Your task to perform on an android device: see tabs open on other devices in the chrome app Image 0: 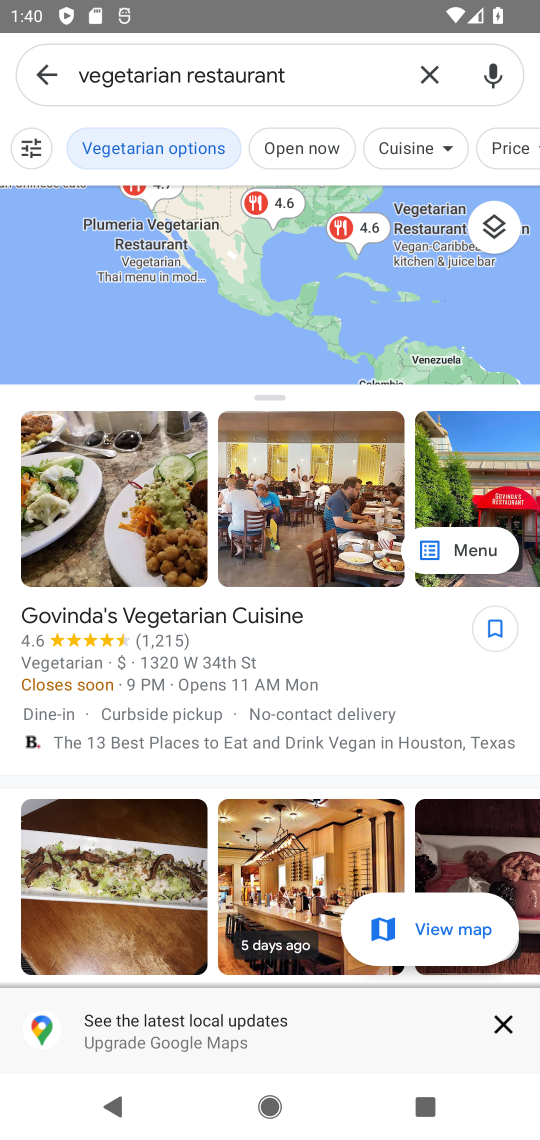
Step 0: press home button
Your task to perform on an android device: see tabs open on other devices in the chrome app Image 1: 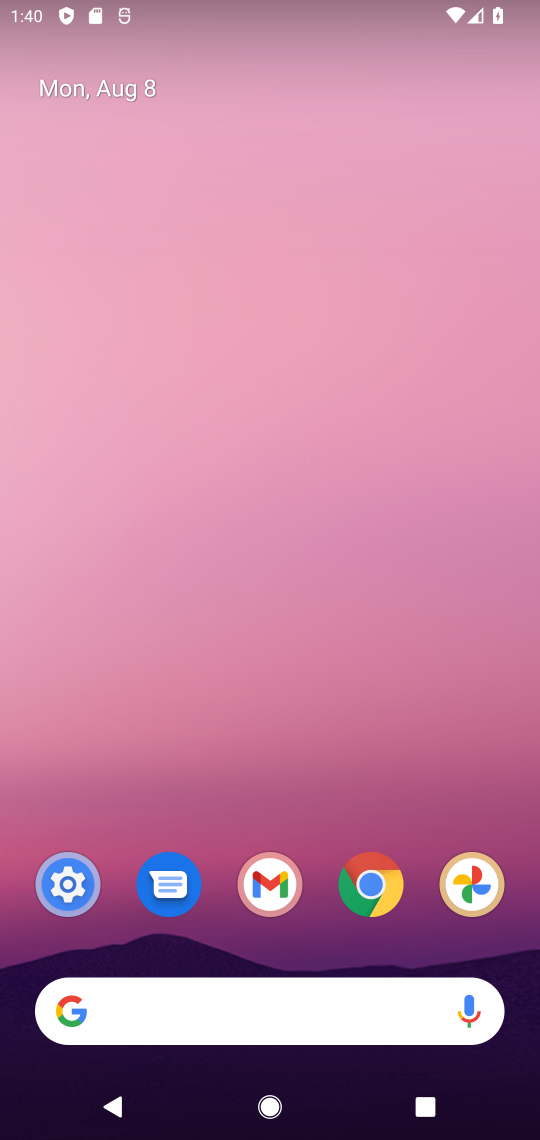
Step 1: click (378, 879)
Your task to perform on an android device: see tabs open on other devices in the chrome app Image 2: 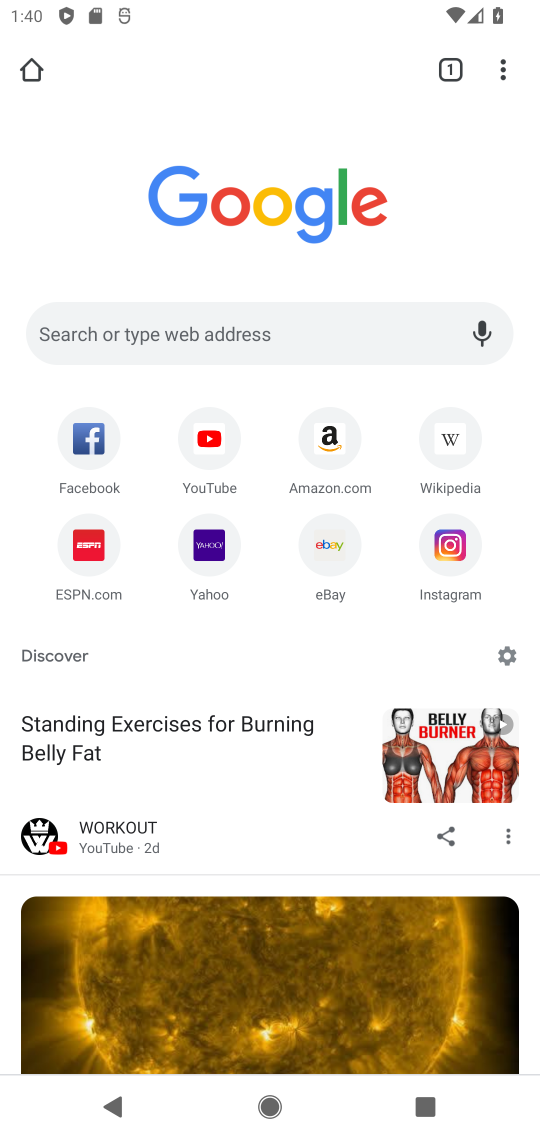
Step 2: click (510, 62)
Your task to perform on an android device: see tabs open on other devices in the chrome app Image 3: 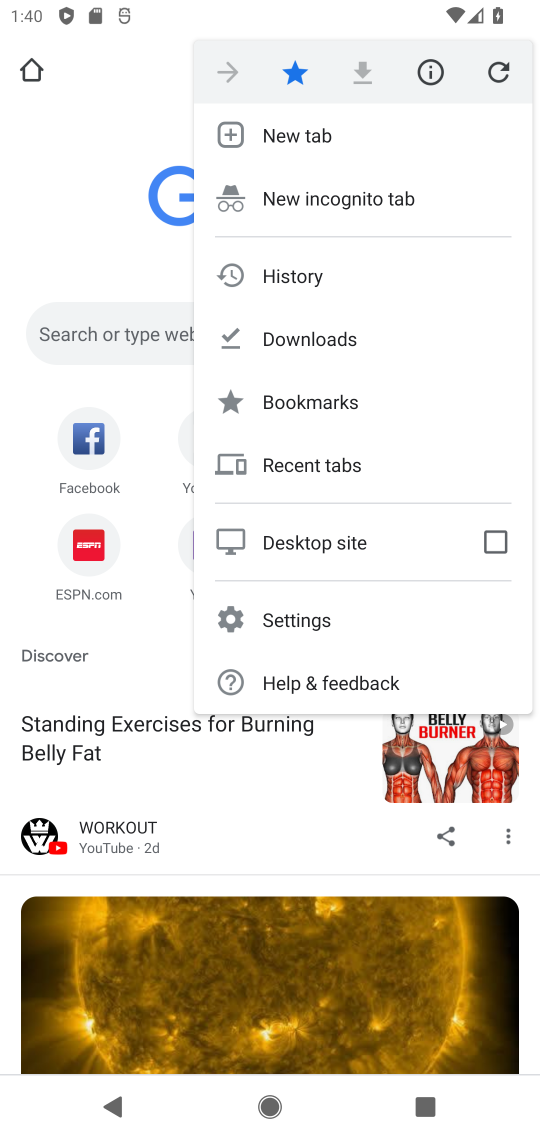
Step 3: click (346, 452)
Your task to perform on an android device: see tabs open on other devices in the chrome app Image 4: 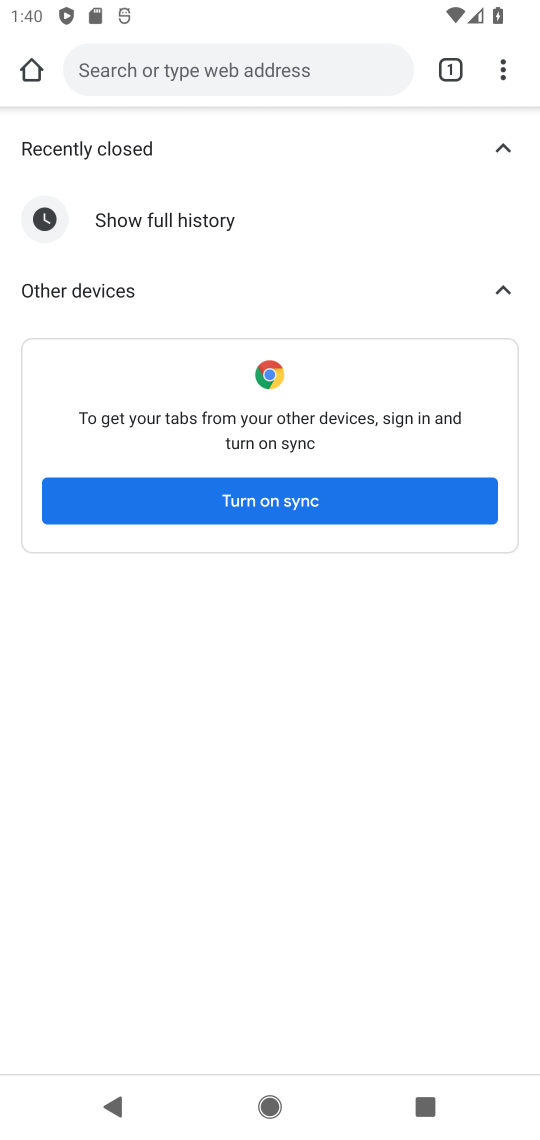
Step 4: task complete